Your task to perform on an android device: Go to display settings Image 0: 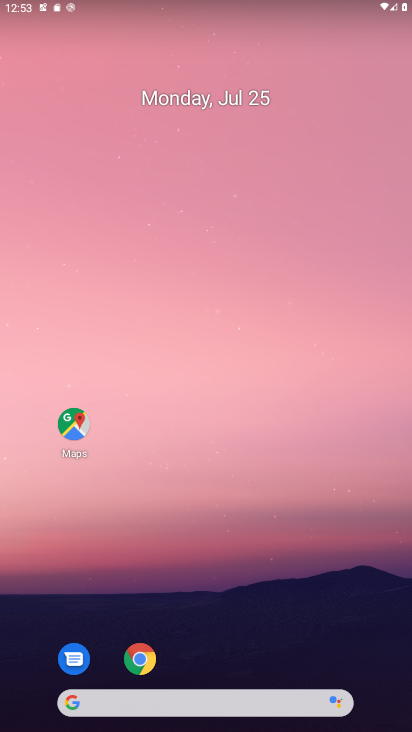
Step 0: press home button
Your task to perform on an android device: Go to display settings Image 1: 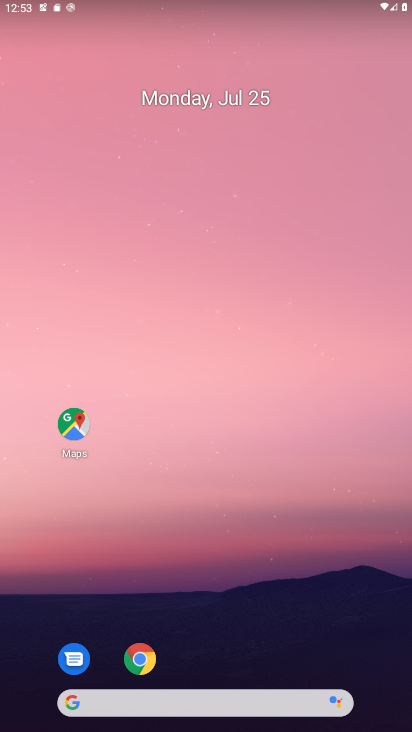
Step 1: drag from (192, 651) to (293, 92)
Your task to perform on an android device: Go to display settings Image 2: 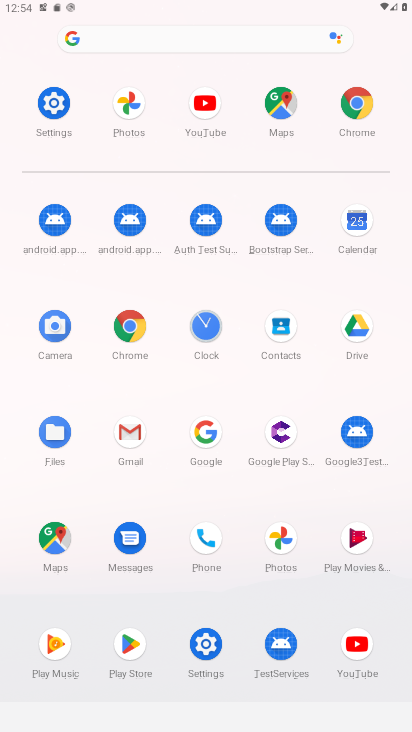
Step 2: click (49, 99)
Your task to perform on an android device: Go to display settings Image 3: 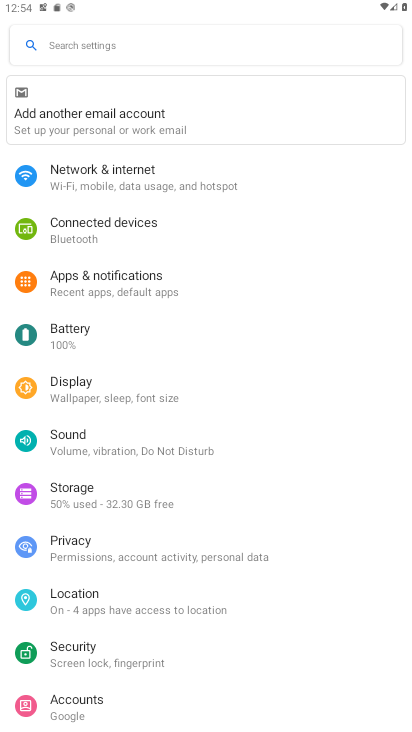
Step 3: click (128, 387)
Your task to perform on an android device: Go to display settings Image 4: 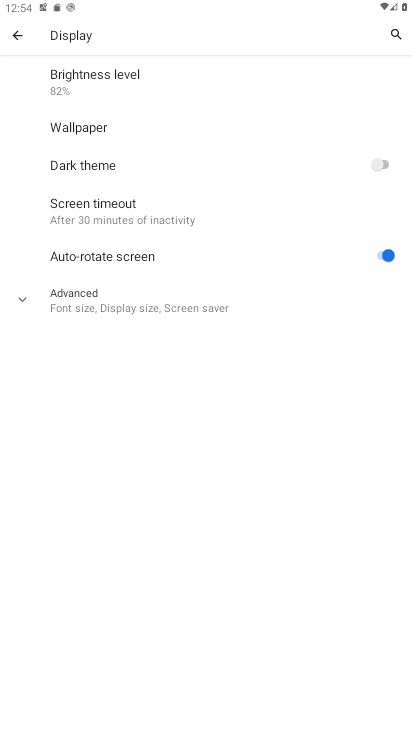
Step 4: click (33, 291)
Your task to perform on an android device: Go to display settings Image 5: 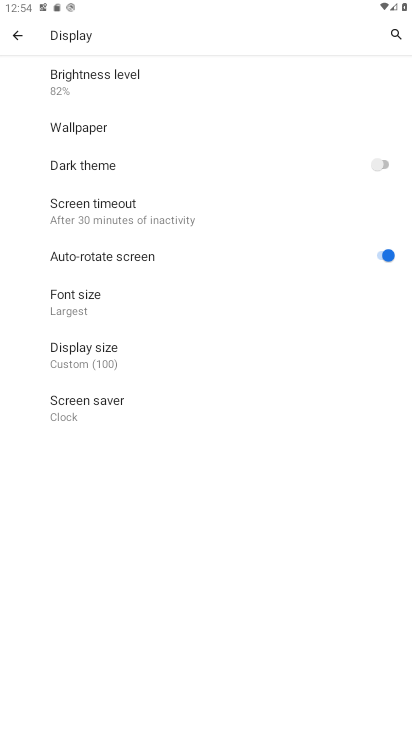
Step 5: task complete